Your task to perform on an android device: Go to Maps Image 0: 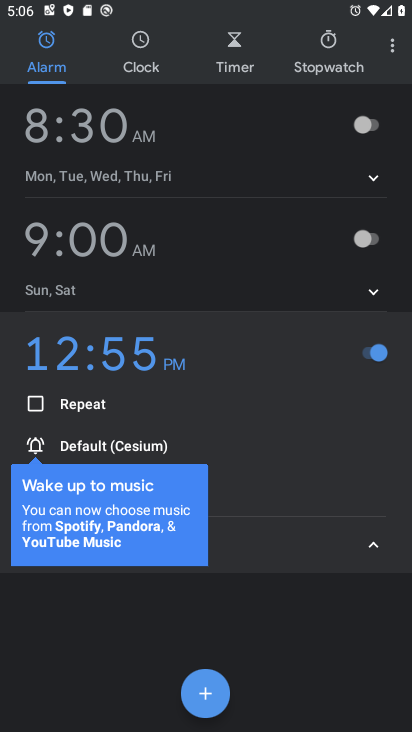
Step 0: press home button
Your task to perform on an android device: Go to Maps Image 1: 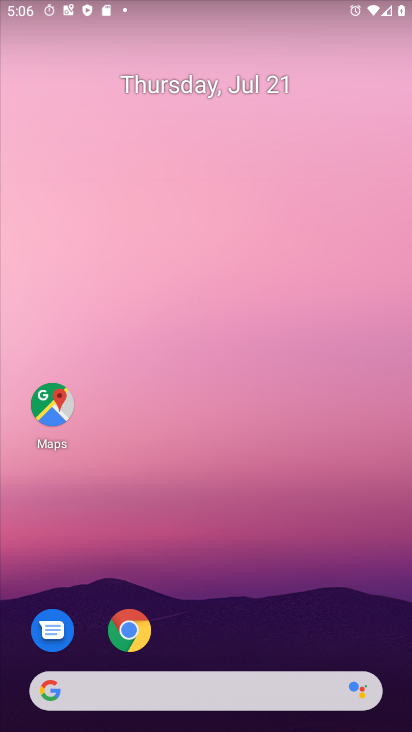
Step 1: click (50, 407)
Your task to perform on an android device: Go to Maps Image 2: 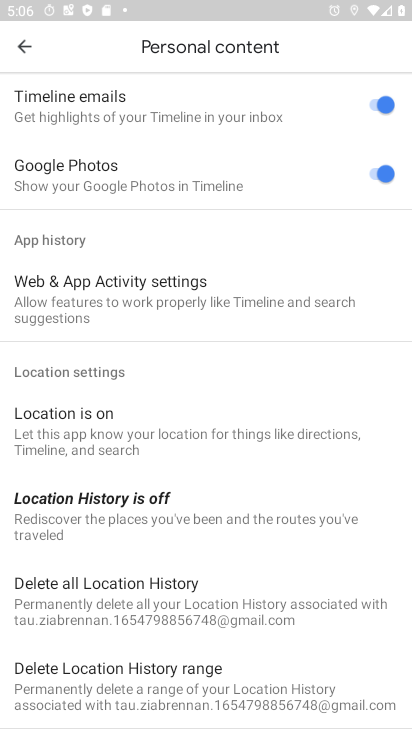
Step 2: task complete